Your task to perform on an android device: change the upload size in google photos Image 0: 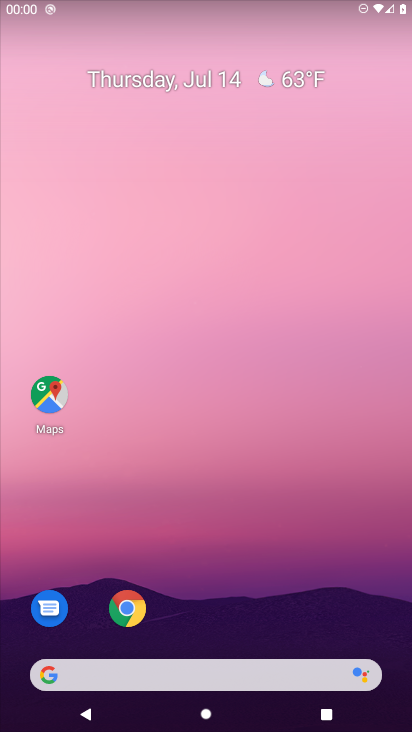
Step 0: press home button
Your task to perform on an android device: change the upload size in google photos Image 1: 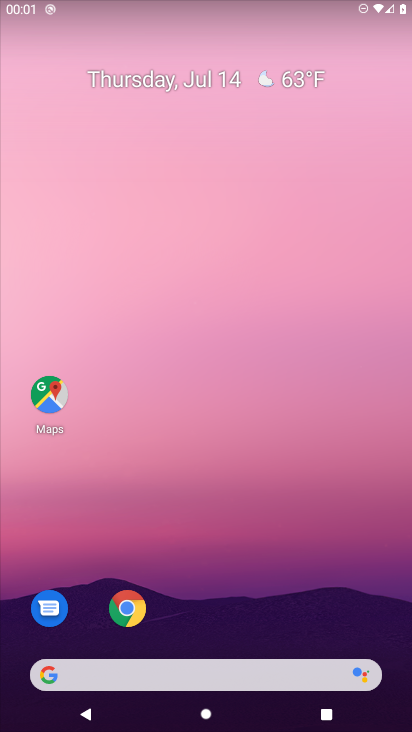
Step 1: drag from (269, 637) to (251, 59)
Your task to perform on an android device: change the upload size in google photos Image 2: 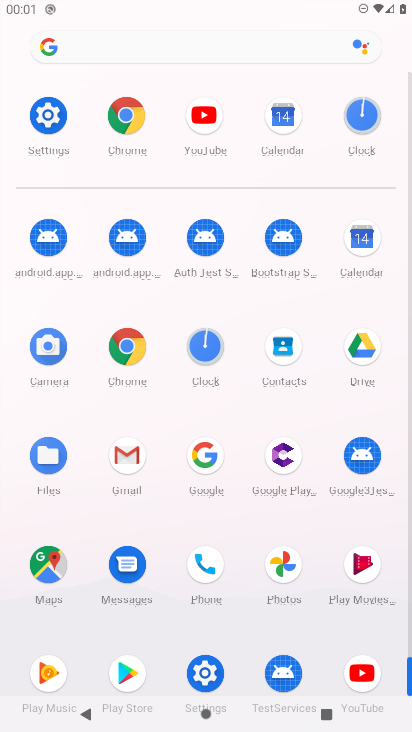
Step 2: click (276, 570)
Your task to perform on an android device: change the upload size in google photos Image 3: 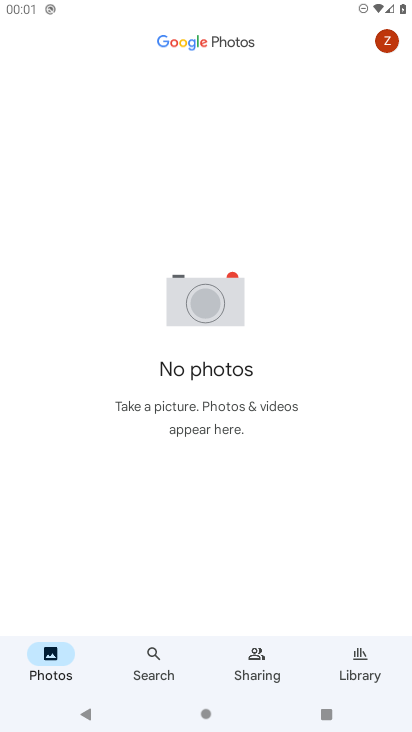
Step 3: click (383, 23)
Your task to perform on an android device: change the upload size in google photos Image 4: 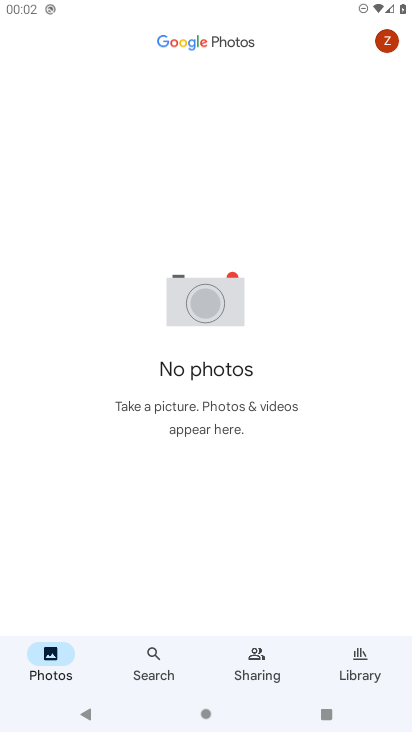
Step 4: click (389, 40)
Your task to perform on an android device: change the upload size in google photos Image 5: 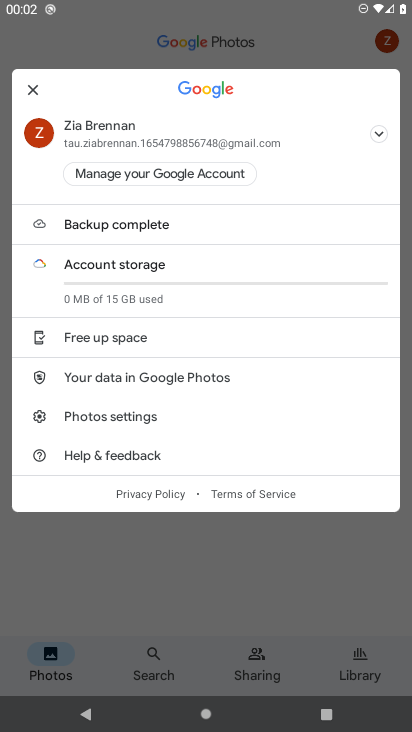
Step 5: click (107, 418)
Your task to perform on an android device: change the upload size in google photos Image 6: 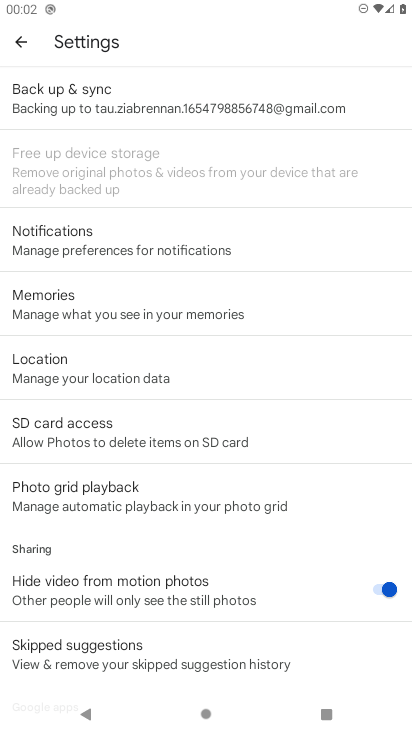
Step 6: click (91, 106)
Your task to perform on an android device: change the upload size in google photos Image 7: 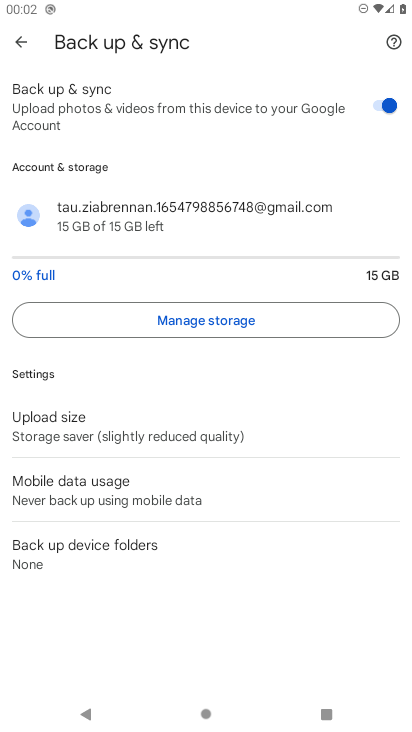
Step 7: click (51, 435)
Your task to perform on an android device: change the upload size in google photos Image 8: 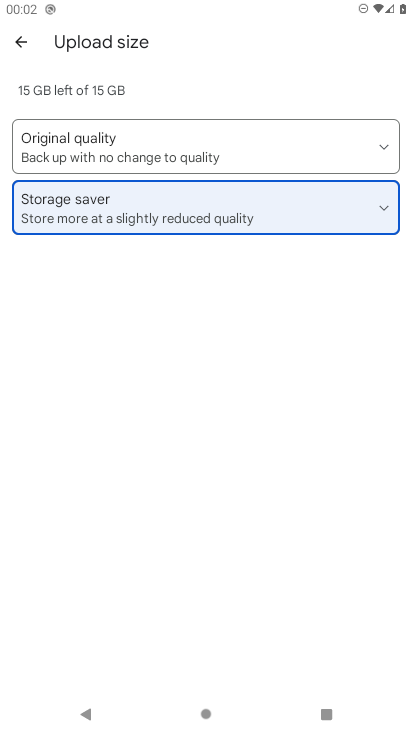
Step 8: click (71, 146)
Your task to perform on an android device: change the upload size in google photos Image 9: 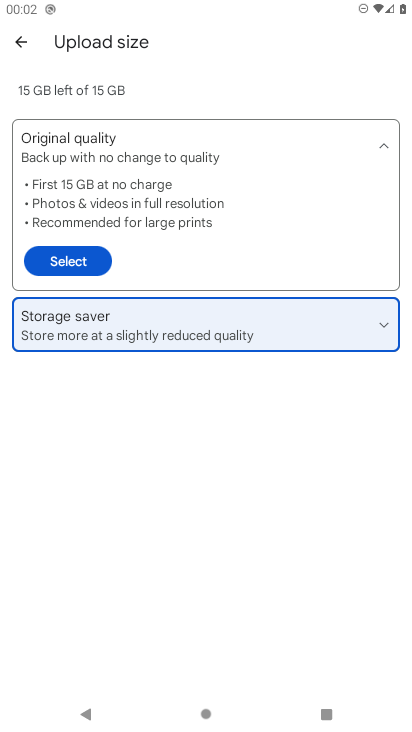
Step 9: click (65, 257)
Your task to perform on an android device: change the upload size in google photos Image 10: 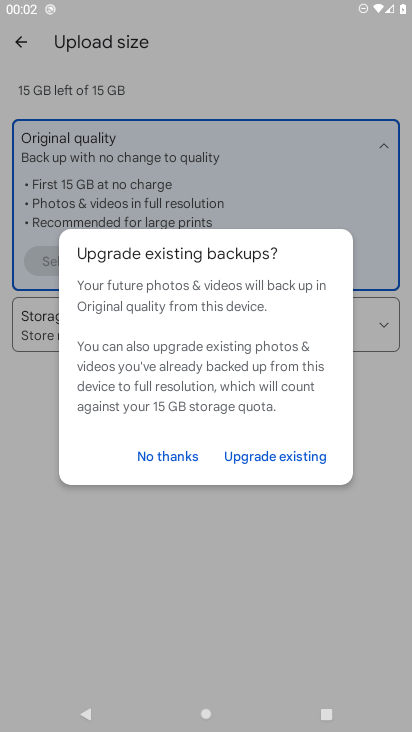
Step 10: click (179, 466)
Your task to perform on an android device: change the upload size in google photos Image 11: 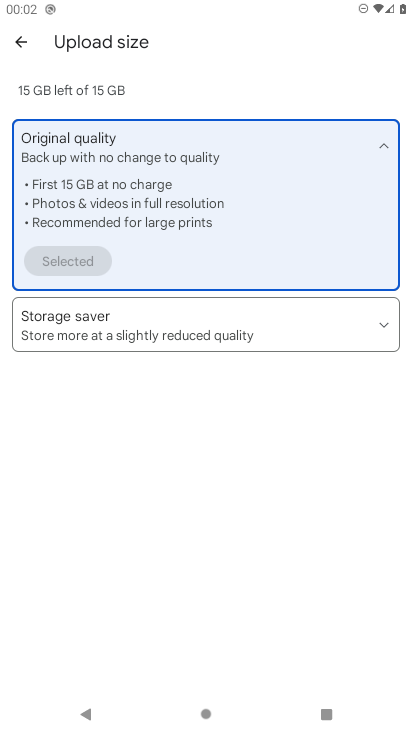
Step 11: task complete